Your task to perform on an android device: Search for Mexican restaurants on Maps Image 0: 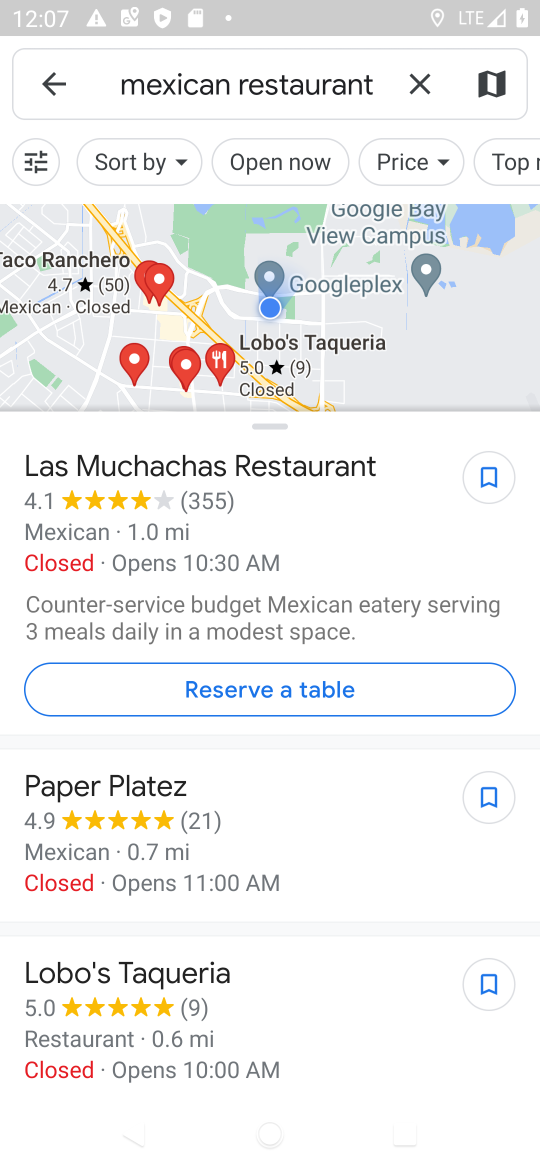
Step 0: task complete